Your task to perform on an android device: turn on translation in the chrome app Image 0: 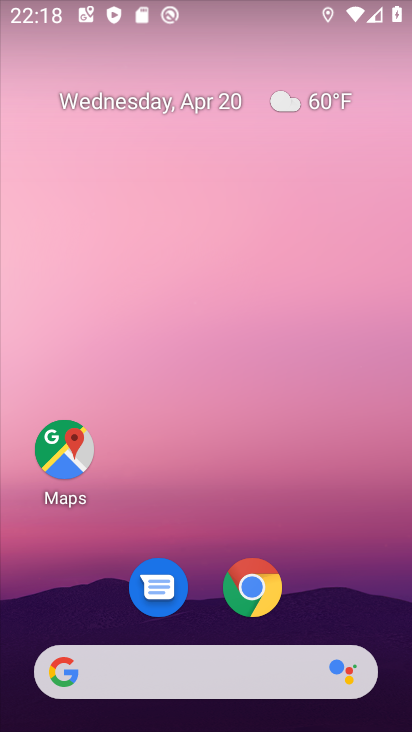
Step 0: click (247, 577)
Your task to perform on an android device: turn on translation in the chrome app Image 1: 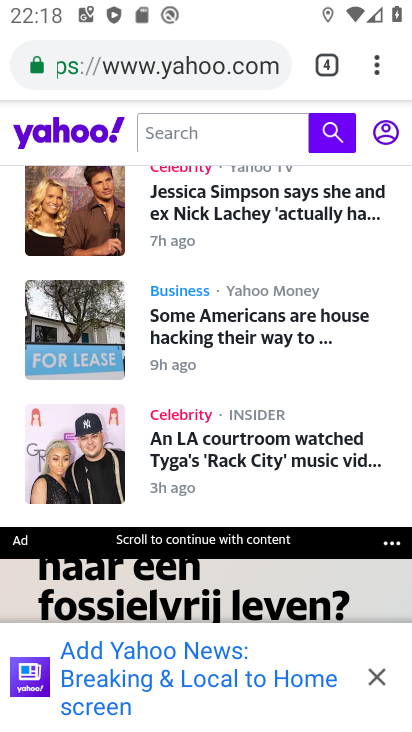
Step 1: drag from (377, 61) to (162, 628)
Your task to perform on an android device: turn on translation in the chrome app Image 2: 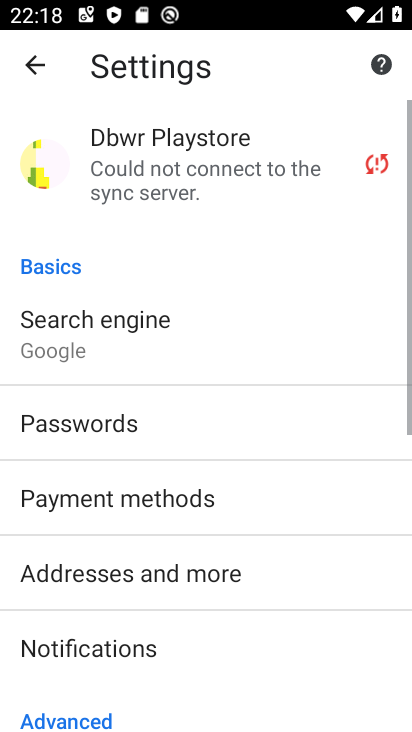
Step 2: drag from (190, 679) to (207, 289)
Your task to perform on an android device: turn on translation in the chrome app Image 3: 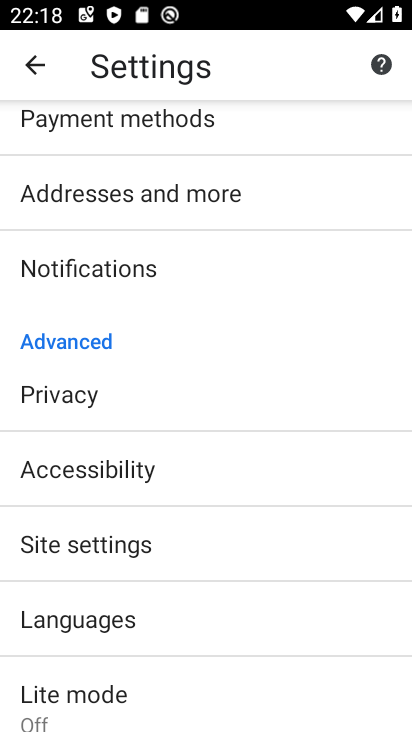
Step 3: drag from (250, 615) to (239, 426)
Your task to perform on an android device: turn on translation in the chrome app Image 4: 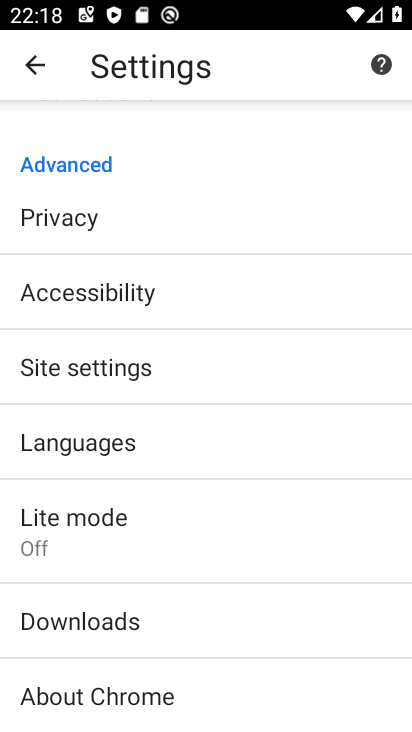
Step 4: click (68, 450)
Your task to perform on an android device: turn on translation in the chrome app Image 5: 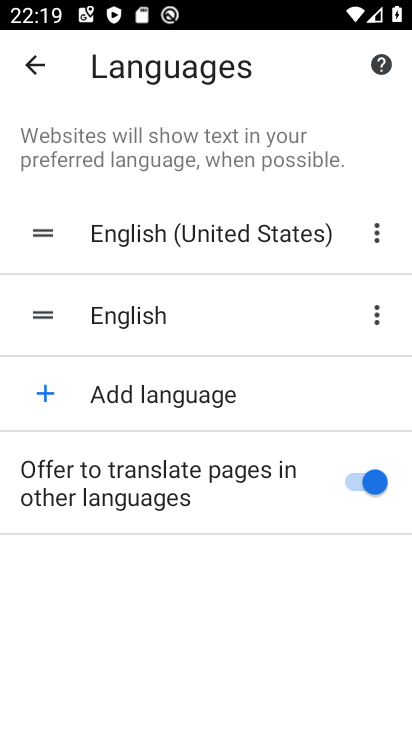
Step 5: task complete